Your task to perform on an android device: Open settings on Google Maps Image 0: 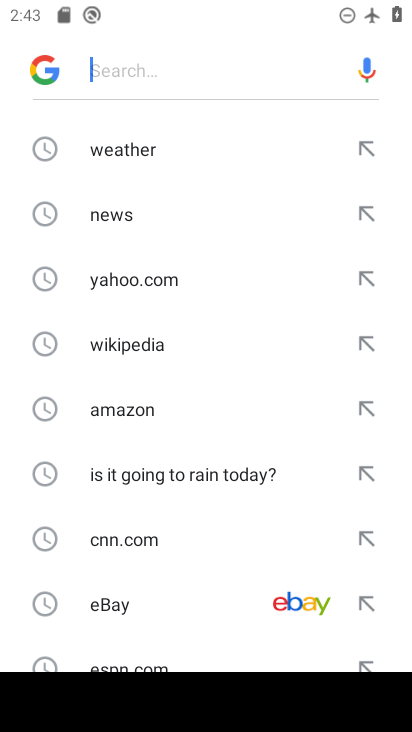
Step 0: press home button
Your task to perform on an android device: Open settings on Google Maps Image 1: 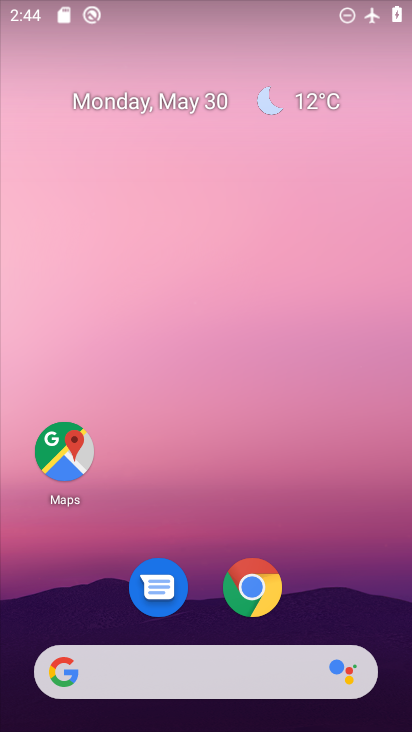
Step 1: click (62, 454)
Your task to perform on an android device: Open settings on Google Maps Image 2: 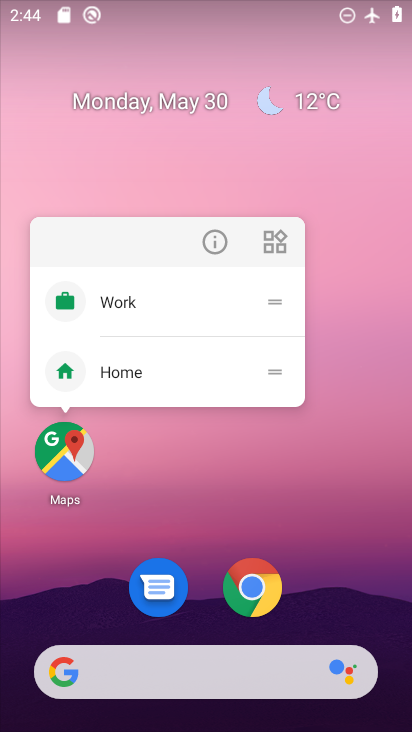
Step 2: click (209, 254)
Your task to perform on an android device: Open settings on Google Maps Image 3: 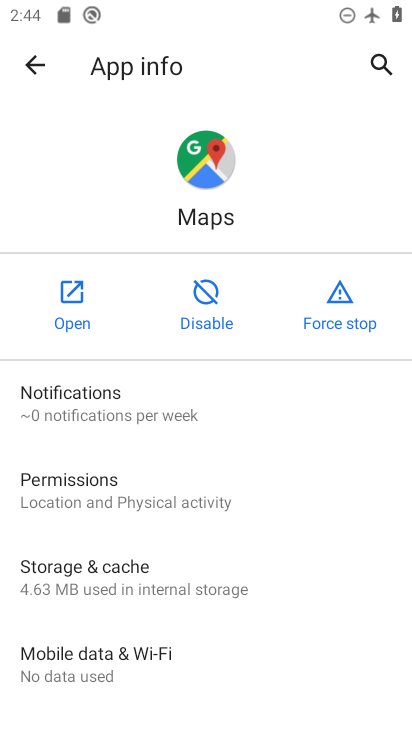
Step 3: click (70, 300)
Your task to perform on an android device: Open settings on Google Maps Image 4: 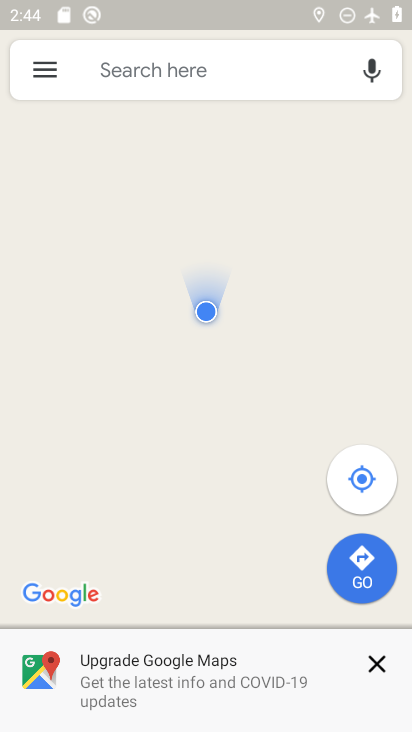
Step 4: task complete